Your task to perform on an android device: set default search engine in the chrome app Image 0: 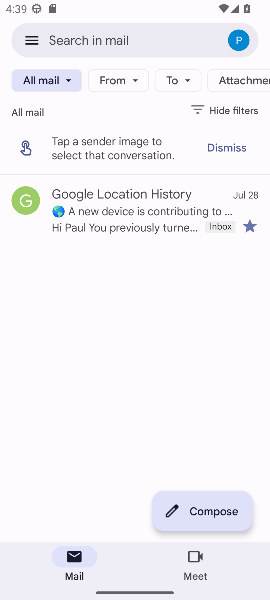
Step 0: press home button
Your task to perform on an android device: set default search engine in the chrome app Image 1: 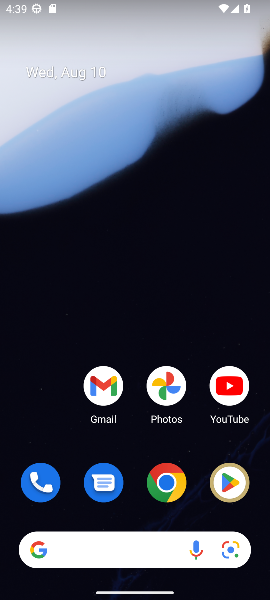
Step 1: click (163, 482)
Your task to perform on an android device: set default search engine in the chrome app Image 2: 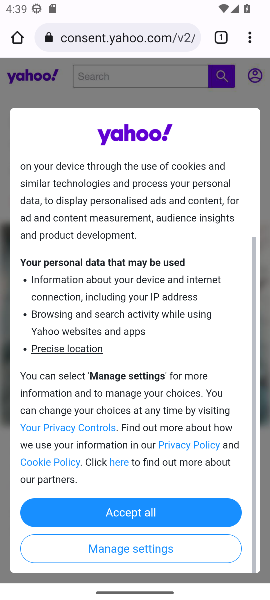
Step 2: click (161, 510)
Your task to perform on an android device: set default search engine in the chrome app Image 3: 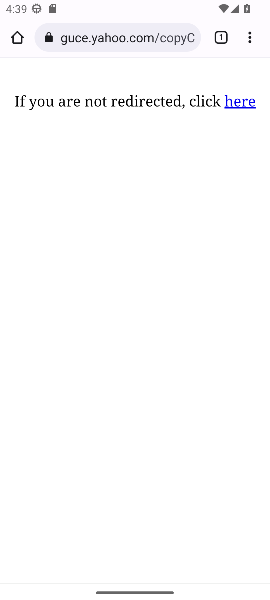
Step 3: press back button
Your task to perform on an android device: set default search engine in the chrome app Image 4: 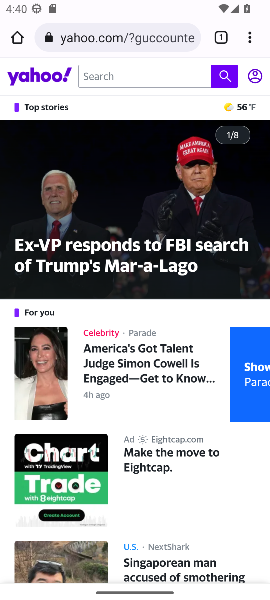
Step 4: press back button
Your task to perform on an android device: set default search engine in the chrome app Image 5: 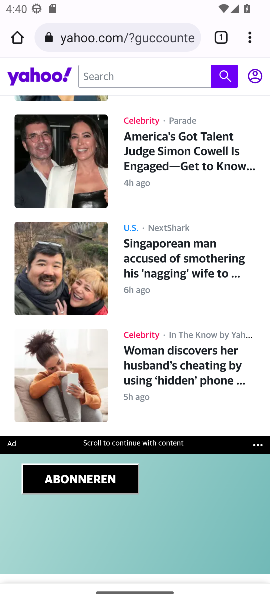
Step 5: press back button
Your task to perform on an android device: set default search engine in the chrome app Image 6: 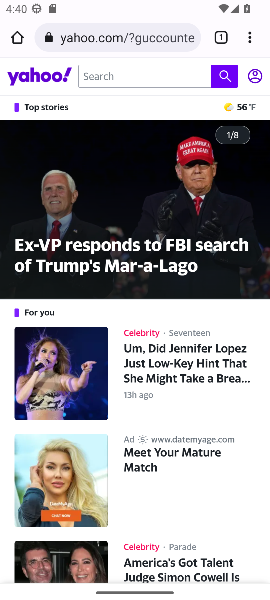
Step 6: press back button
Your task to perform on an android device: set default search engine in the chrome app Image 7: 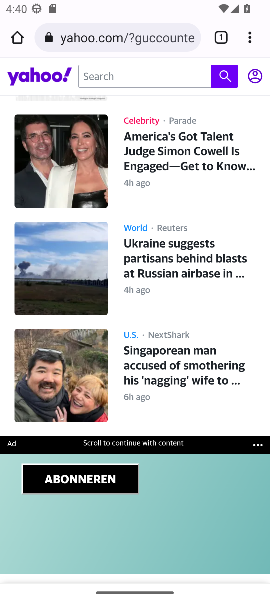
Step 7: click (250, 41)
Your task to perform on an android device: set default search engine in the chrome app Image 8: 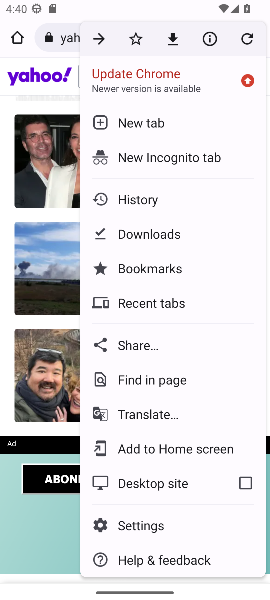
Step 8: click (145, 520)
Your task to perform on an android device: set default search engine in the chrome app Image 9: 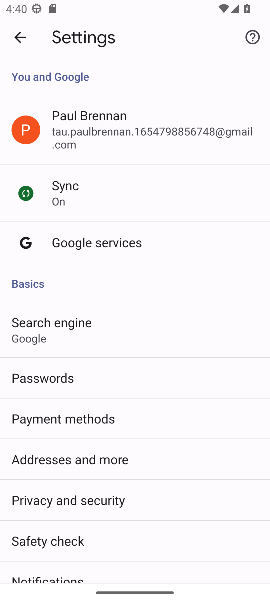
Step 9: click (78, 333)
Your task to perform on an android device: set default search engine in the chrome app Image 10: 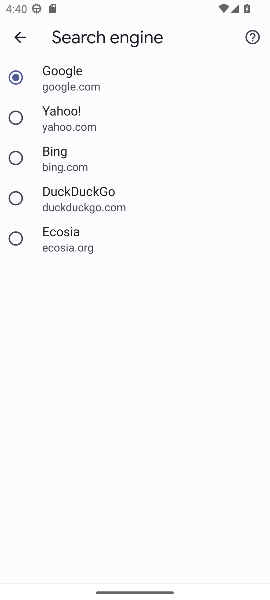
Step 10: task complete